Your task to perform on an android device: see sites visited before in the chrome app Image 0: 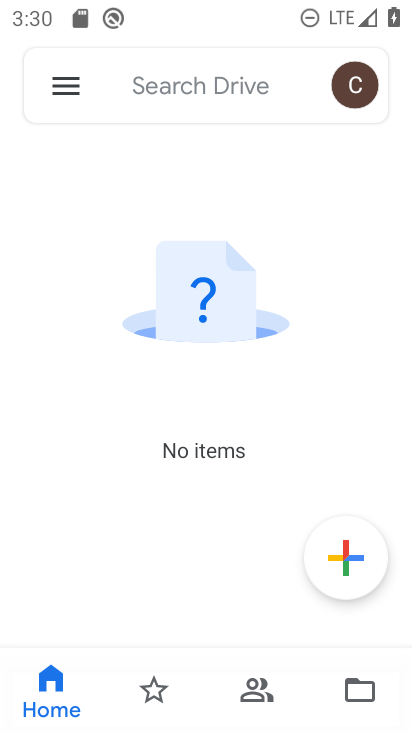
Step 0: press home button
Your task to perform on an android device: see sites visited before in the chrome app Image 1: 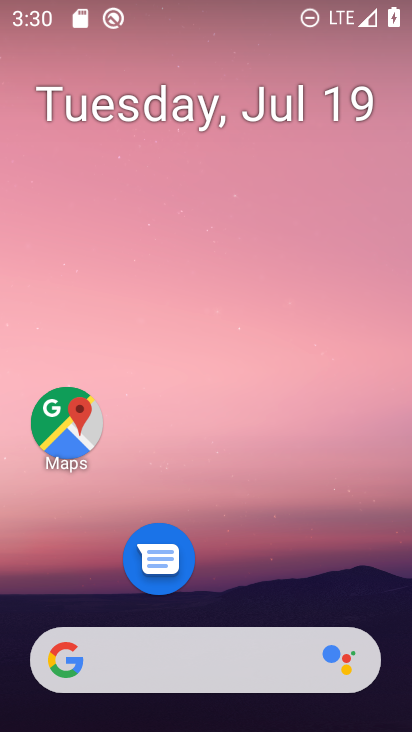
Step 1: drag from (259, 670) to (290, 93)
Your task to perform on an android device: see sites visited before in the chrome app Image 2: 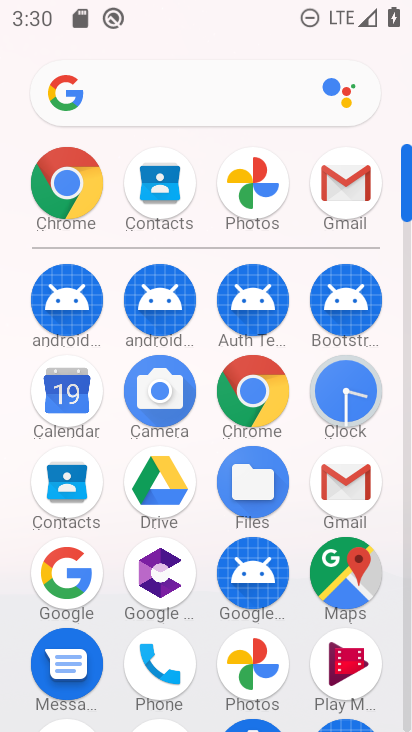
Step 2: click (269, 409)
Your task to perform on an android device: see sites visited before in the chrome app Image 3: 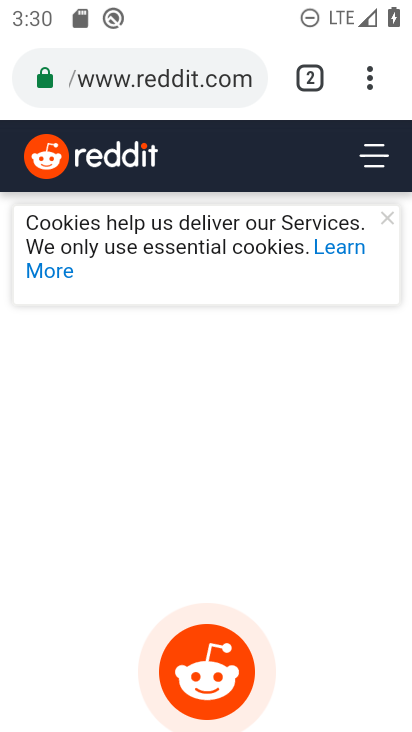
Step 3: press home button
Your task to perform on an android device: see sites visited before in the chrome app Image 4: 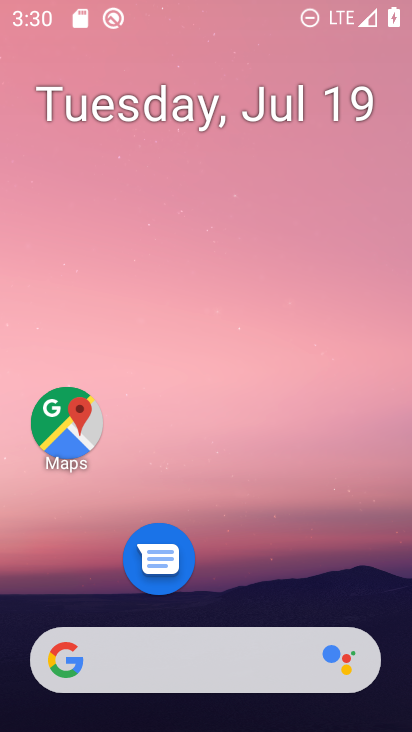
Step 4: drag from (234, 679) to (281, 91)
Your task to perform on an android device: see sites visited before in the chrome app Image 5: 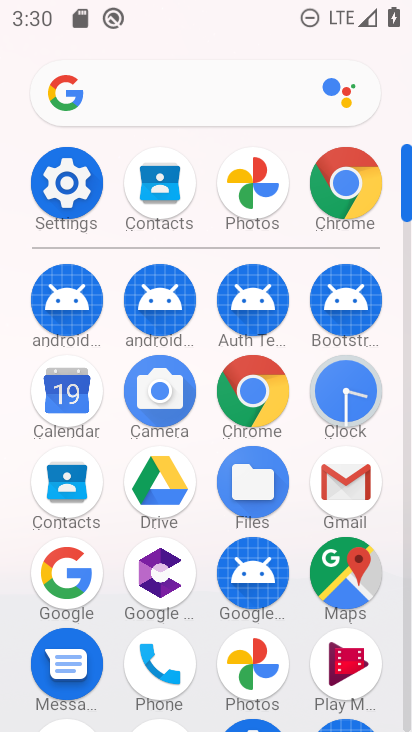
Step 5: click (353, 205)
Your task to perform on an android device: see sites visited before in the chrome app Image 6: 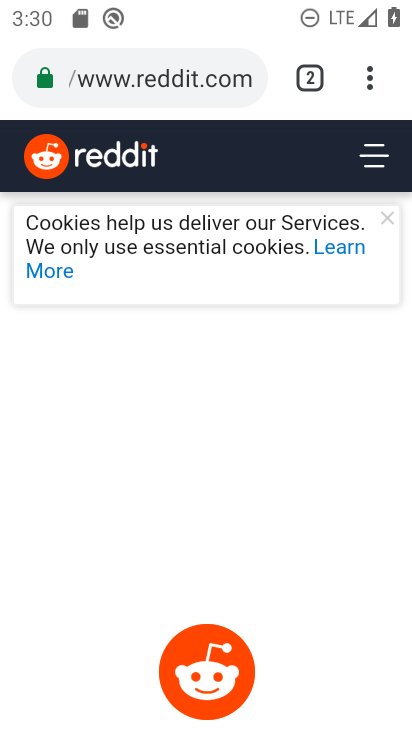
Step 6: click (379, 81)
Your task to perform on an android device: see sites visited before in the chrome app Image 7: 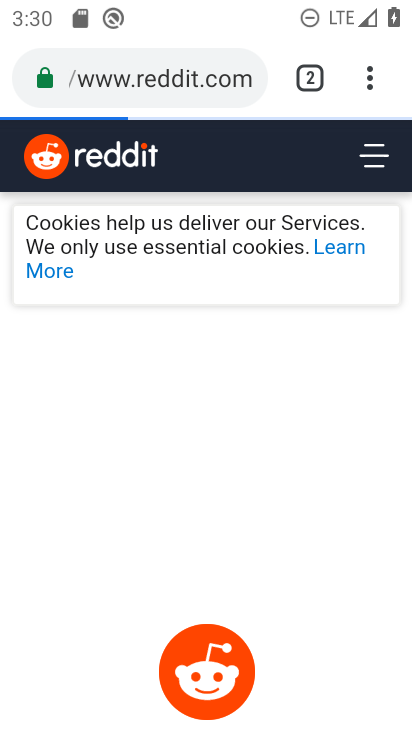
Step 7: click (373, 83)
Your task to perform on an android device: see sites visited before in the chrome app Image 8: 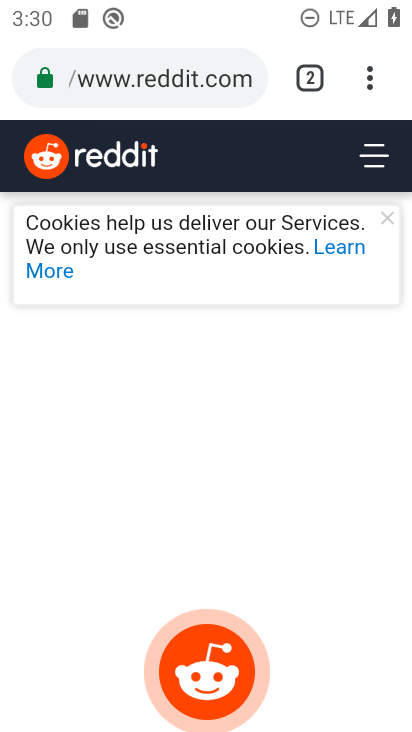
Step 8: click (372, 83)
Your task to perform on an android device: see sites visited before in the chrome app Image 9: 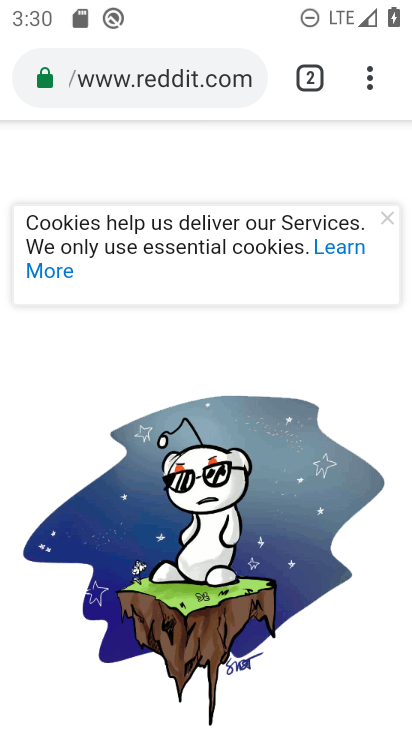
Step 9: click (371, 82)
Your task to perform on an android device: see sites visited before in the chrome app Image 10: 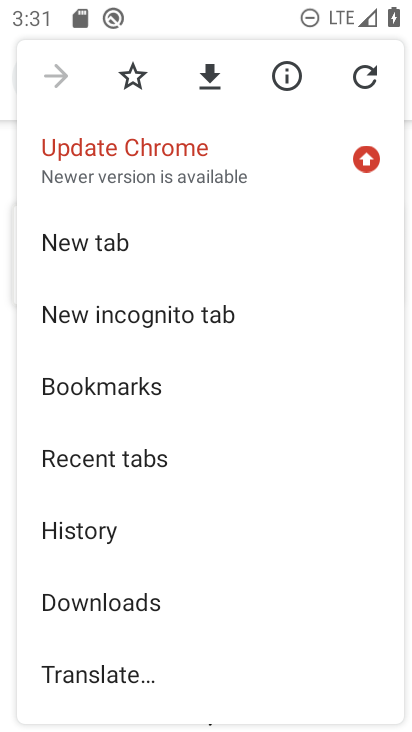
Step 10: drag from (179, 606) to (182, 209)
Your task to perform on an android device: see sites visited before in the chrome app Image 11: 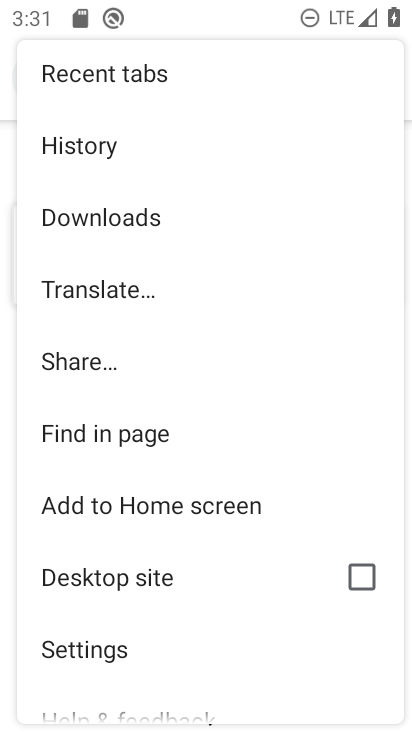
Step 11: drag from (189, 504) to (212, 173)
Your task to perform on an android device: see sites visited before in the chrome app Image 12: 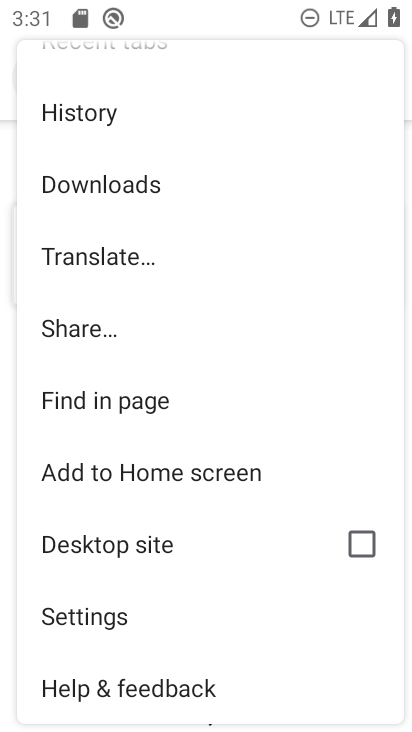
Step 12: click (96, 119)
Your task to perform on an android device: see sites visited before in the chrome app Image 13: 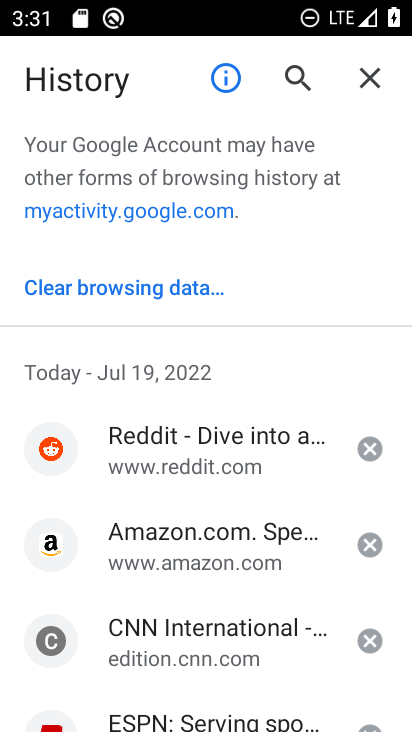
Step 13: task complete